Your task to perform on an android device: Open the stopwatch Image 0: 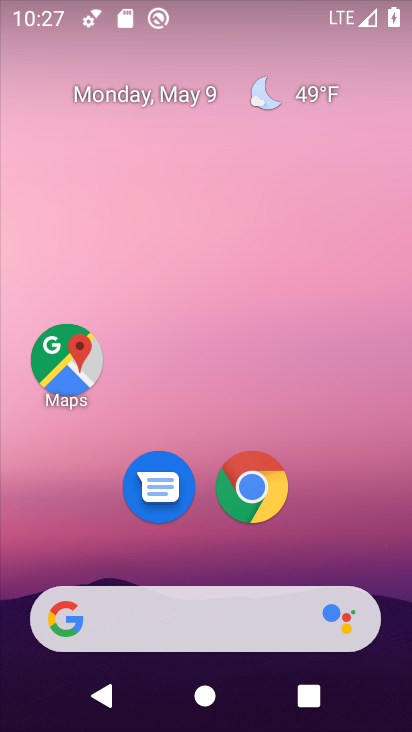
Step 0: drag from (321, 475) to (112, 67)
Your task to perform on an android device: Open the stopwatch Image 1: 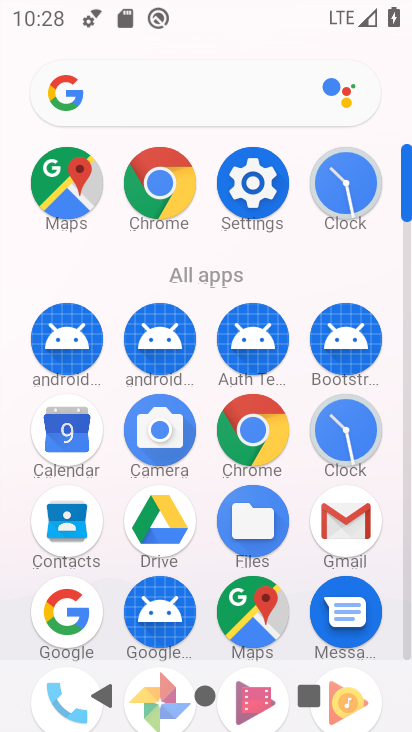
Step 1: click (349, 189)
Your task to perform on an android device: Open the stopwatch Image 2: 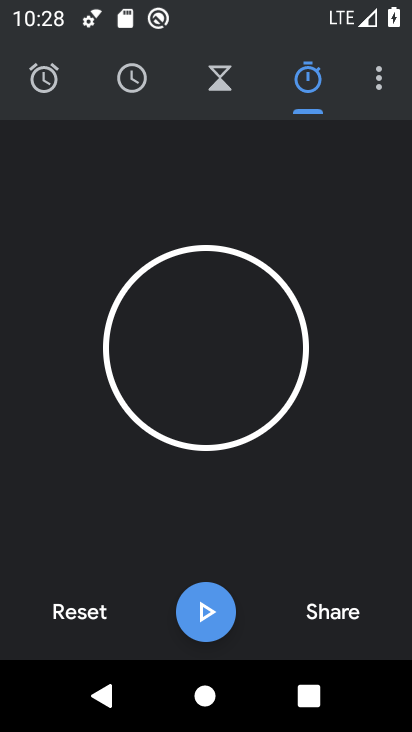
Step 2: task complete